Your task to perform on an android device: change the clock style Image 0: 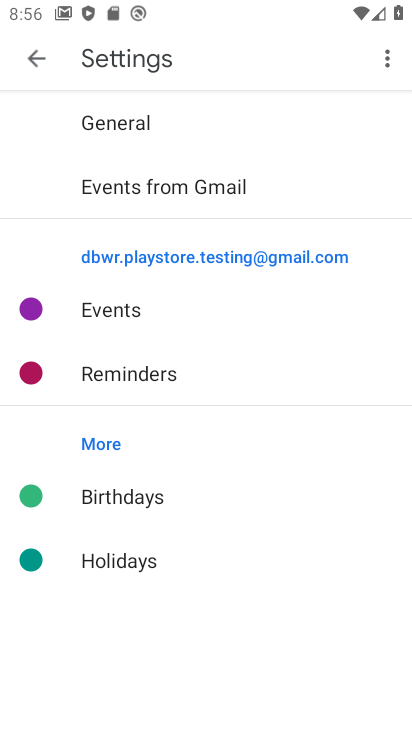
Step 0: press home button
Your task to perform on an android device: change the clock style Image 1: 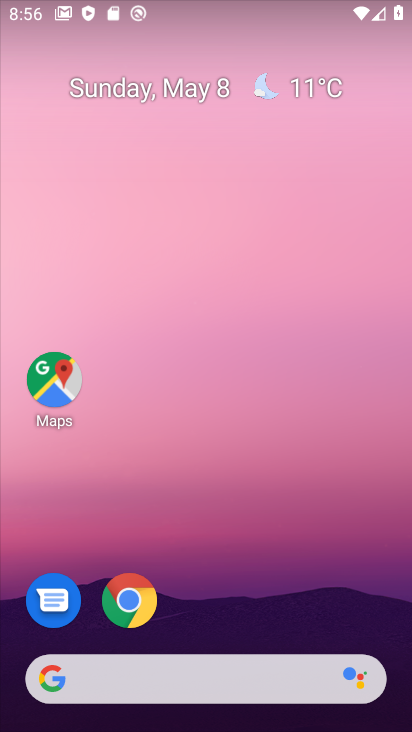
Step 1: click (234, 639)
Your task to perform on an android device: change the clock style Image 2: 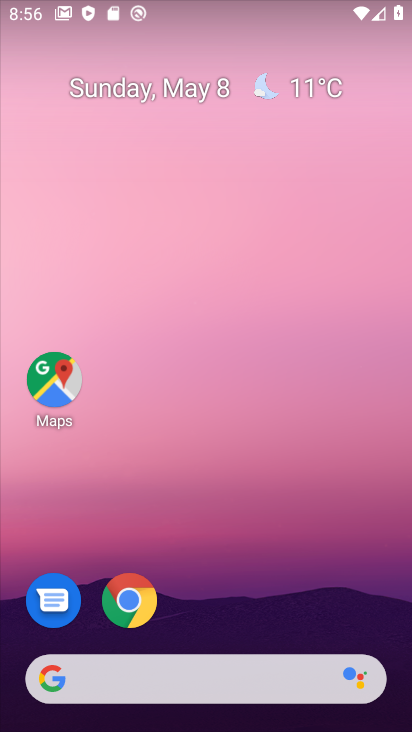
Step 2: drag from (234, 639) to (283, 100)
Your task to perform on an android device: change the clock style Image 3: 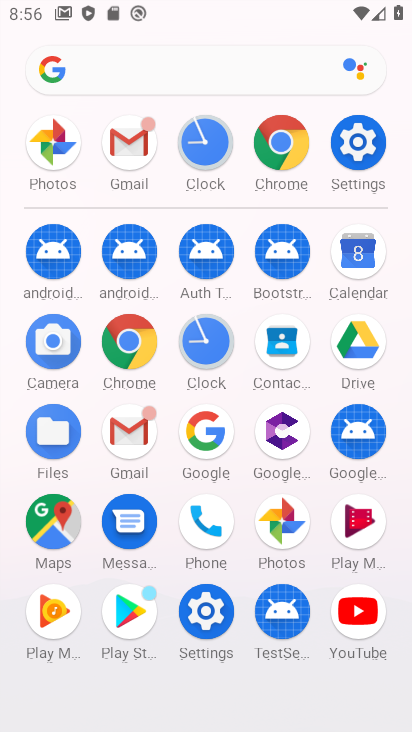
Step 3: click (355, 149)
Your task to perform on an android device: change the clock style Image 4: 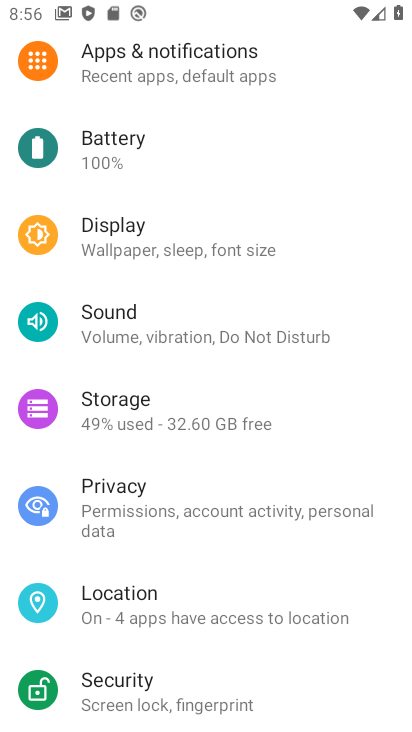
Step 4: drag from (126, 571) to (209, 16)
Your task to perform on an android device: change the clock style Image 5: 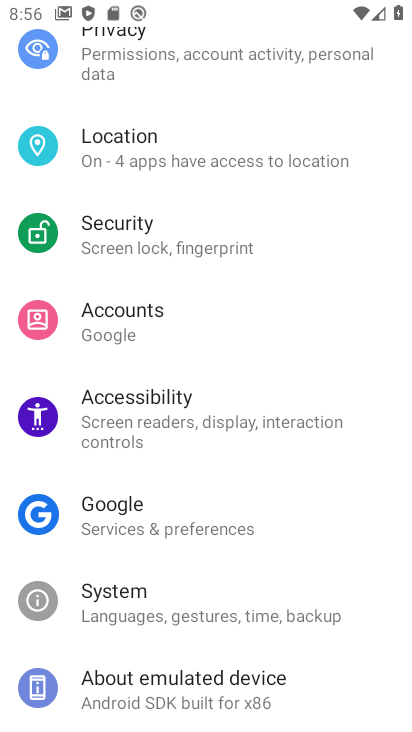
Step 5: drag from (183, 608) to (218, 345)
Your task to perform on an android device: change the clock style Image 6: 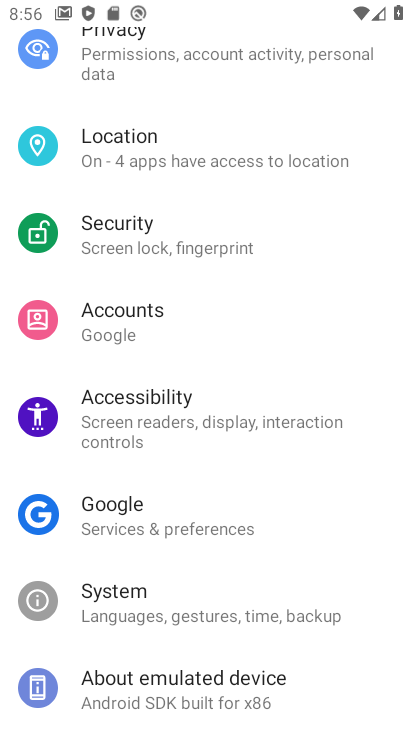
Step 6: press home button
Your task to perform on an android device: change the clock style Image 7: 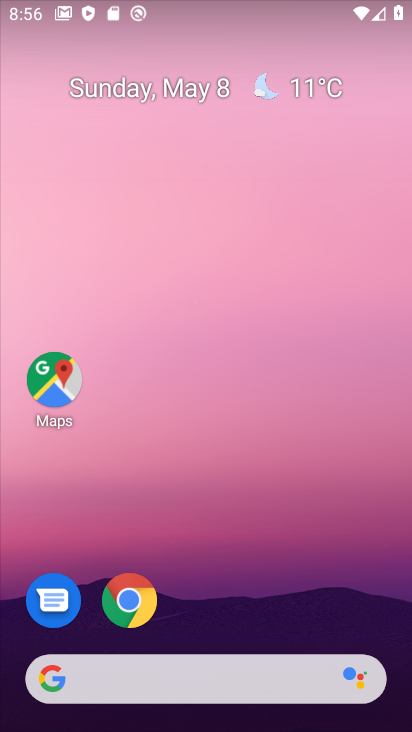
Step 7: drag from (231, 608) to (285, 140)
Your task to perform on an android device: change the clock style Image 8: 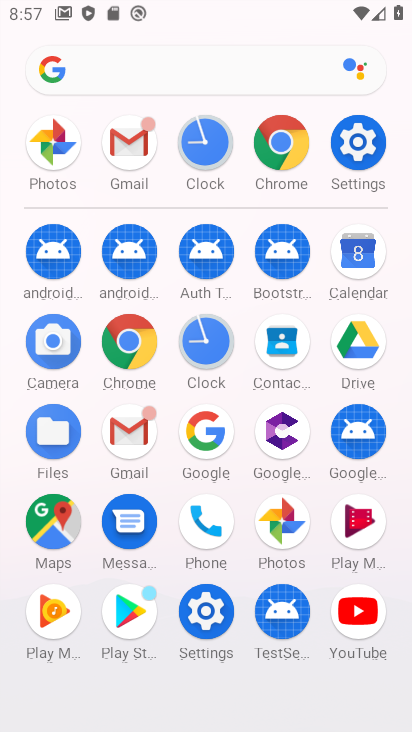
Step 8: click (203, 131)
Your task to perform on an android device: change the clock style Image 9: 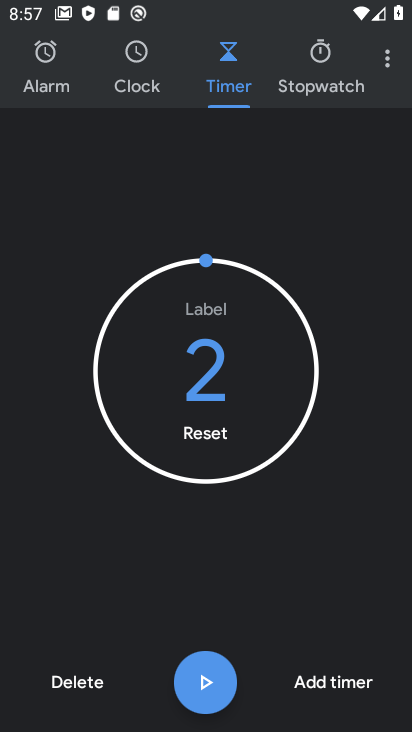
Step 9: click (378, 58)
Your task to perform on an android device: change the clock style Image 10: 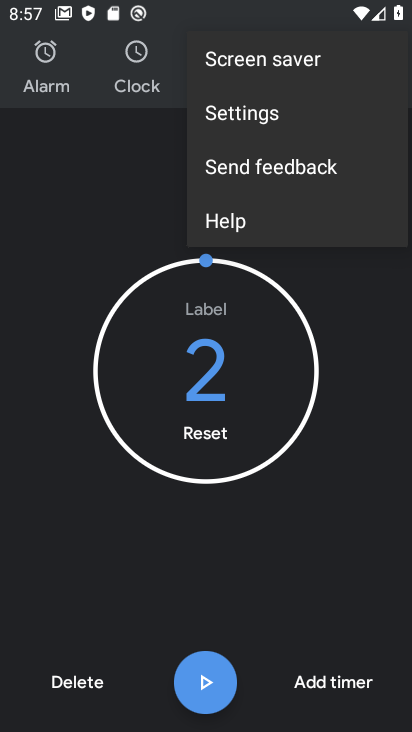
Step 10: click (280, 101)
Your task to perform on an android device: change the clock style Image 11: 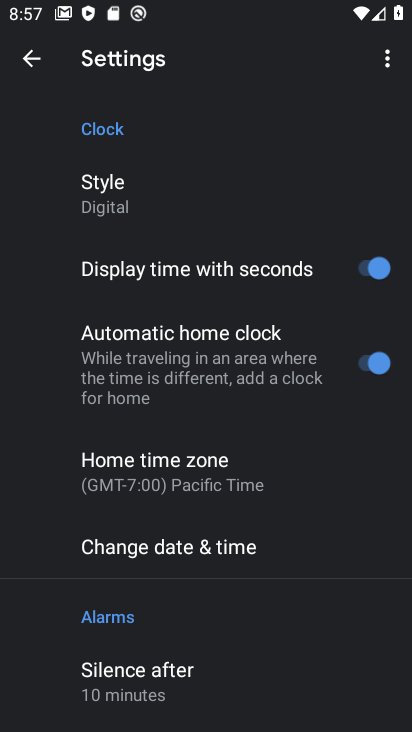
Step 11: click (193, 195)
Your task to perform on an android device: change the clock style Image 12: 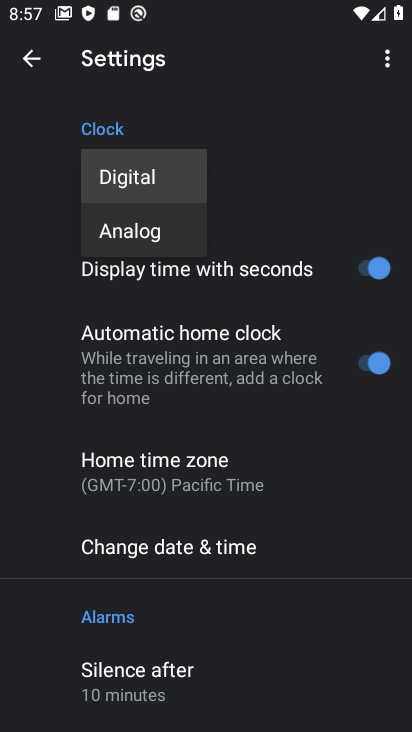
Step 12: click (172, 205)
Your task to perform on an android device: change the clock style Image 13: 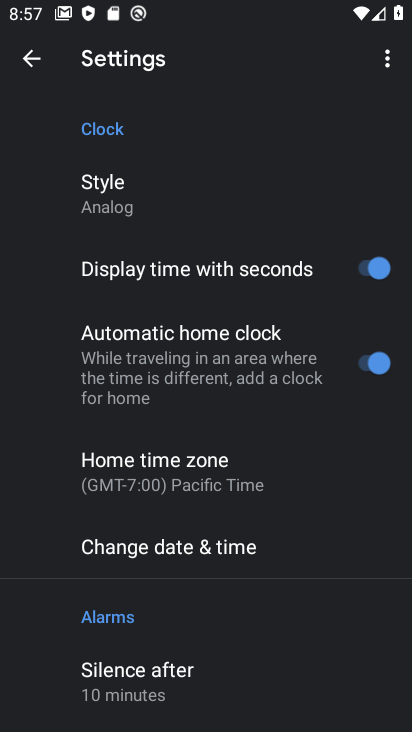
Step 13: task complete